Your task to perform on an android device: open the mobile data screen to see how much data has been used Image 0: 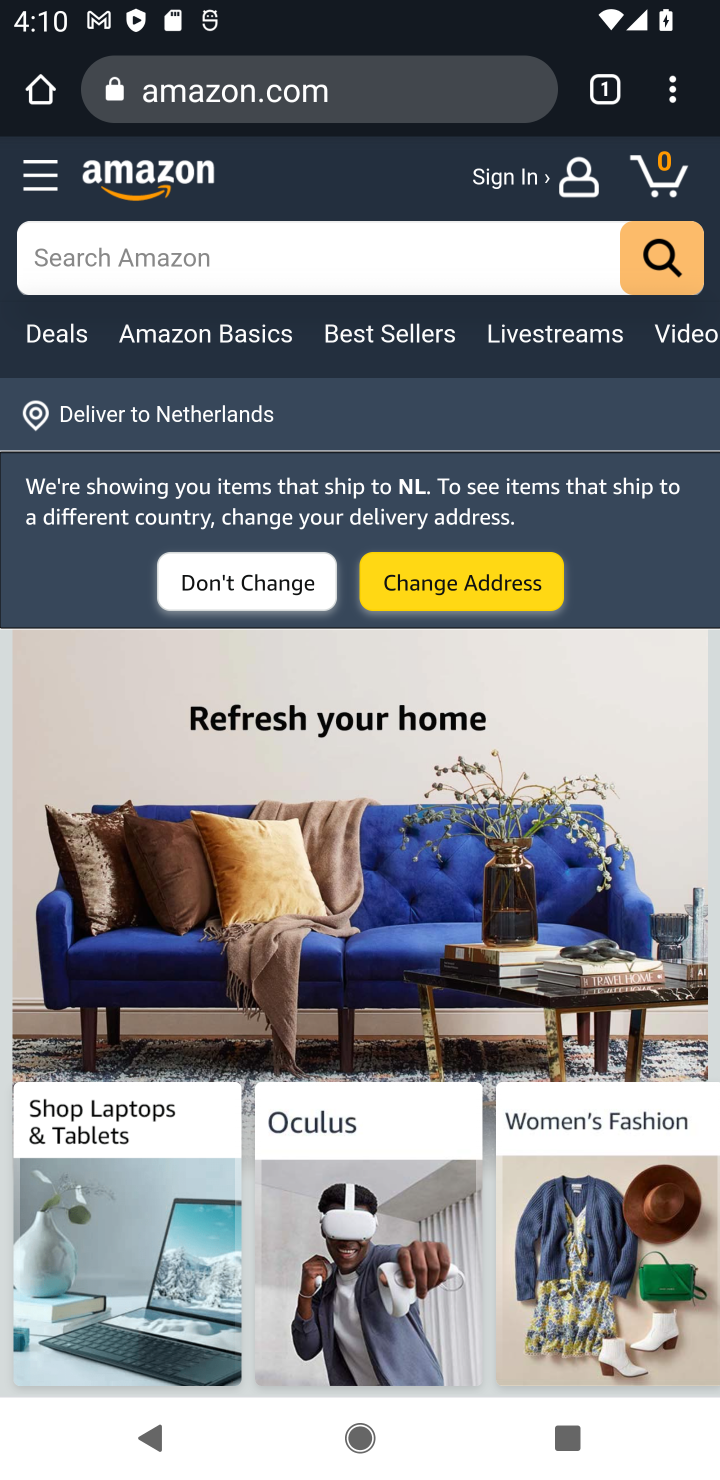
Step 0: task complete